Your task to perform on an android device: turn on data saver in the chrome app Image 0: 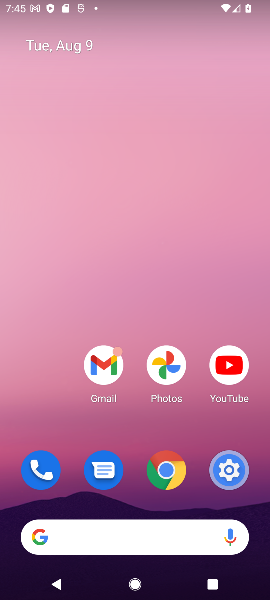
Step 0: drag from (150, 268) to (188, 24)
Your task to perform on an android device: turn on data saver in the chrome app Image 1: 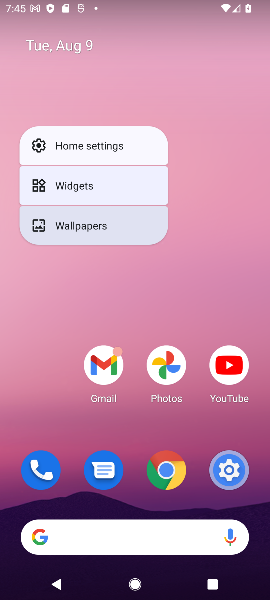
Step 1: click (157, 480)
Your task to perform on an android device: turn on data saver in the chrome app Image 2: 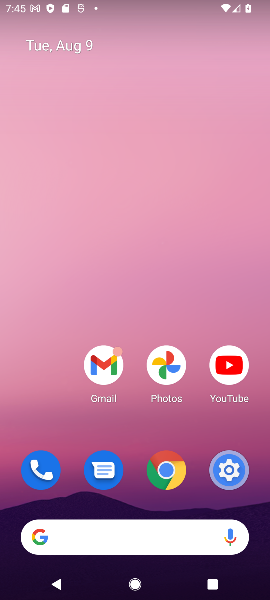
Step 2: click (175, 472)
Your task to perform on an android device: turn on data saver in the chrome app Image 3: 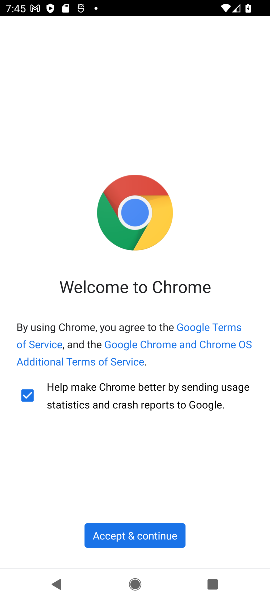
Step 3: click (171, 537)
Your task to perform on an android device: turn on data saver in the chrome app Image 4: 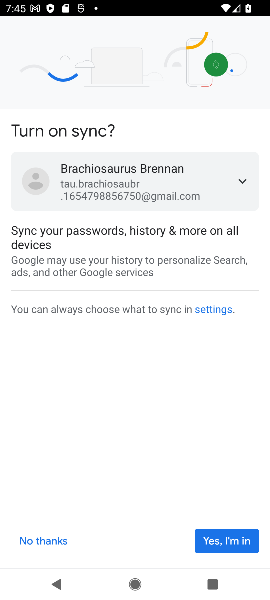
Step 4: click (225, 548)
Your task to perform on an android device: turn on data saver in the chrome app Image 5: 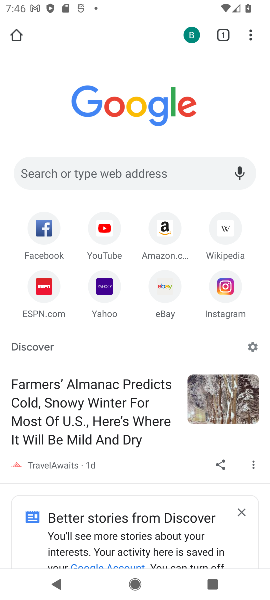
Step 5: click (248, 36)
Your task to perform on an android device: turn on data saver in the chrome app Image 6: 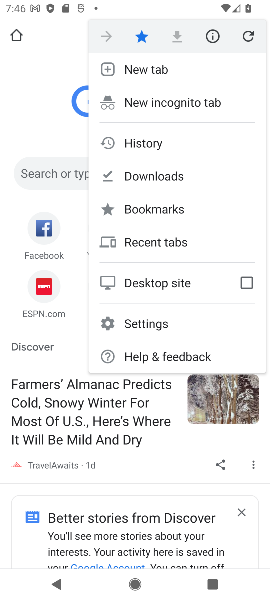
Step 6: click (146, 329)
Your task to perform on an android device: turn on data saver in the chrome app Image 7: 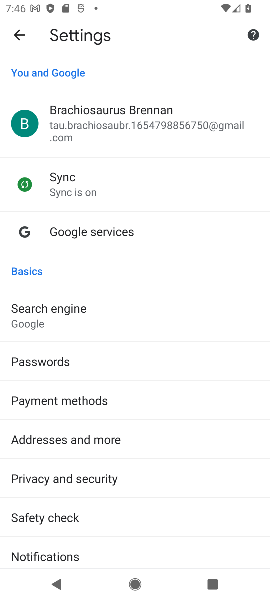
Step 7: drag from (75, 516) to (113, 267)
Your task to perform on an android device: turn on data saver in the chrome app Image 8: 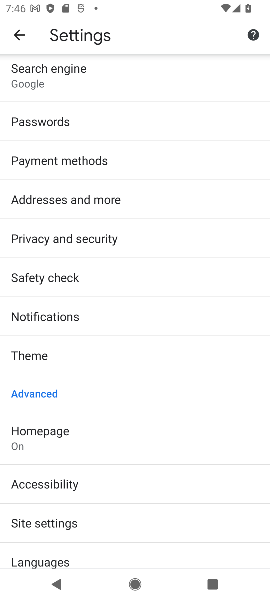
Step 8: drag from (86, 516) to (128, 272)
Your task to perform on an android device: turn on data saver in the chrome app Image 9: 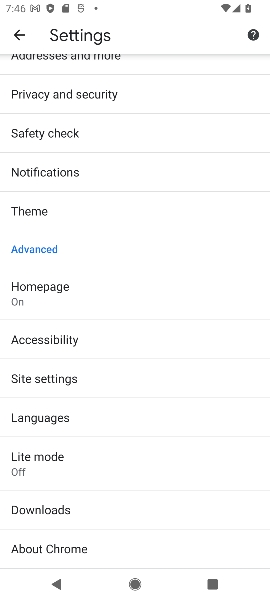
Step 9: click (59, 466)
Your task to perform on an android device: turn on data saver in the chrome app Image 10: 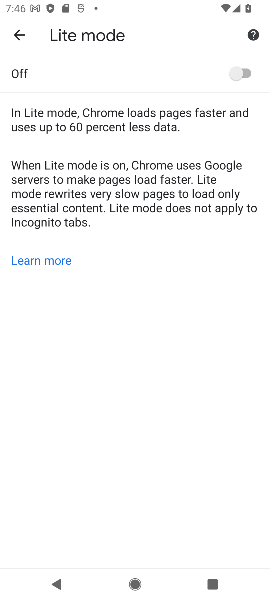
Step 10: click (231, 86)
Your task to perform on an android device: turn on data saver in the chrome app Image 11: 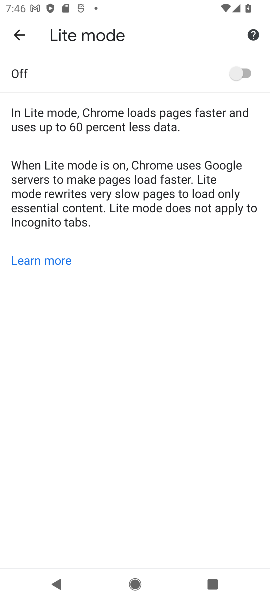
Step 11: click (260, 68)
Your task to perform on an android device: turn on data saver in the chrome app Image 12: 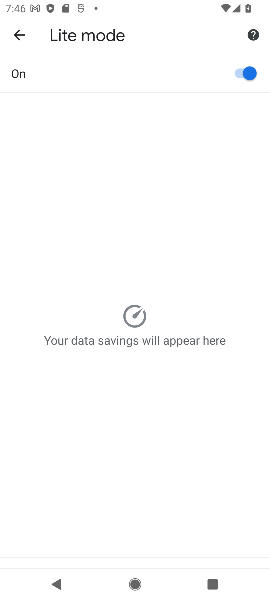
Step 12: click (194, 275)
Your task to perform on an android device: turn on data saver in the chrome app Image 13: 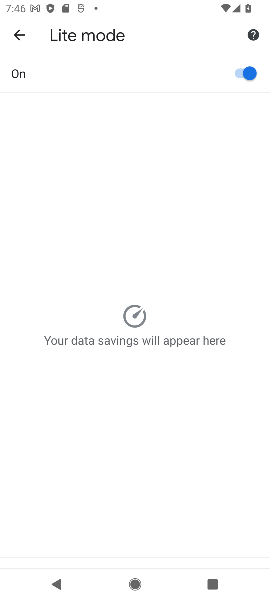
Step 13: task complete